Your task to perform on an android device: Check the settings for the Google Play Store app Image 0: 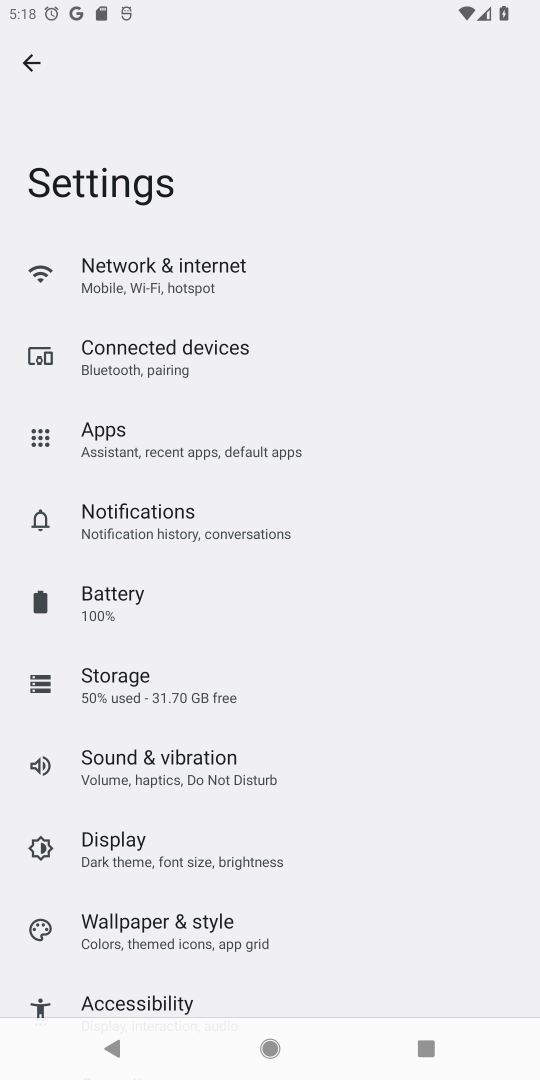
Step 0: press home button
Your task to perform on an android device: Check the settings for the Google Play Store app Image 1: 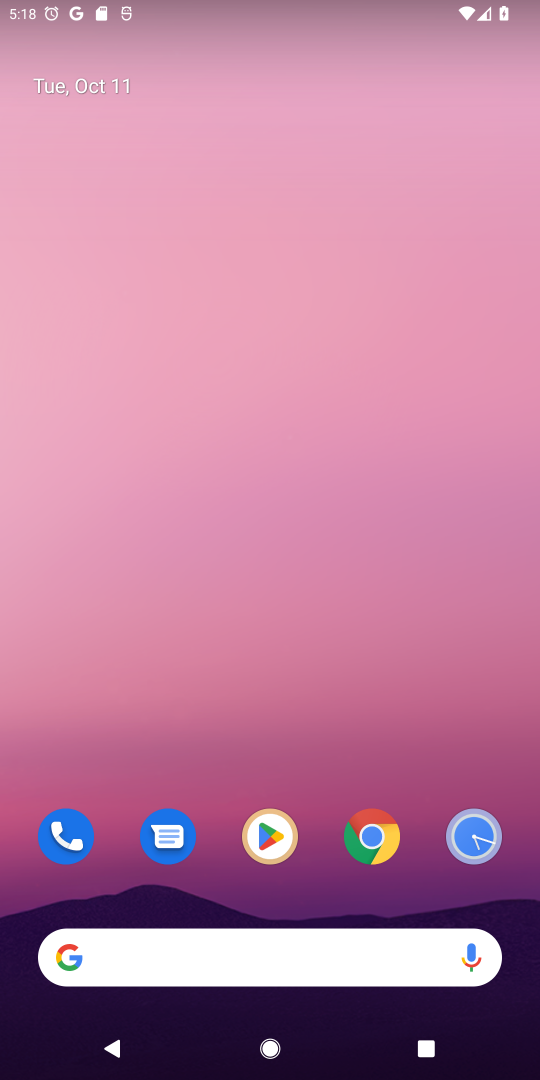
Step 1: click (282, 829)
Your task to perform on an android device: Check the settings for the Google Play Store app Image 2: 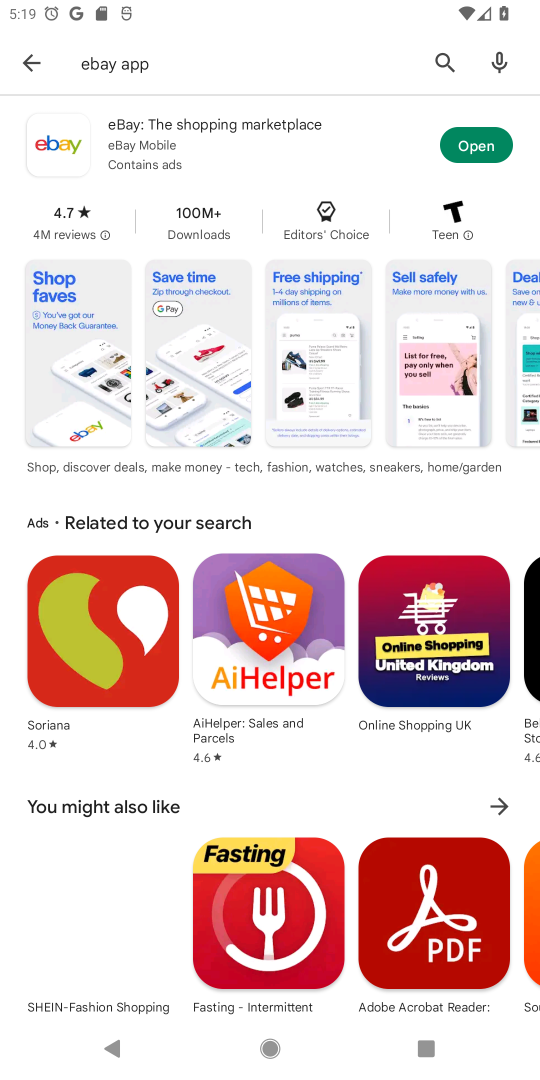
Step 2: click (32, 59)
Your task to perform on an android device: Check the settings for the Google Play Store app Image 3: 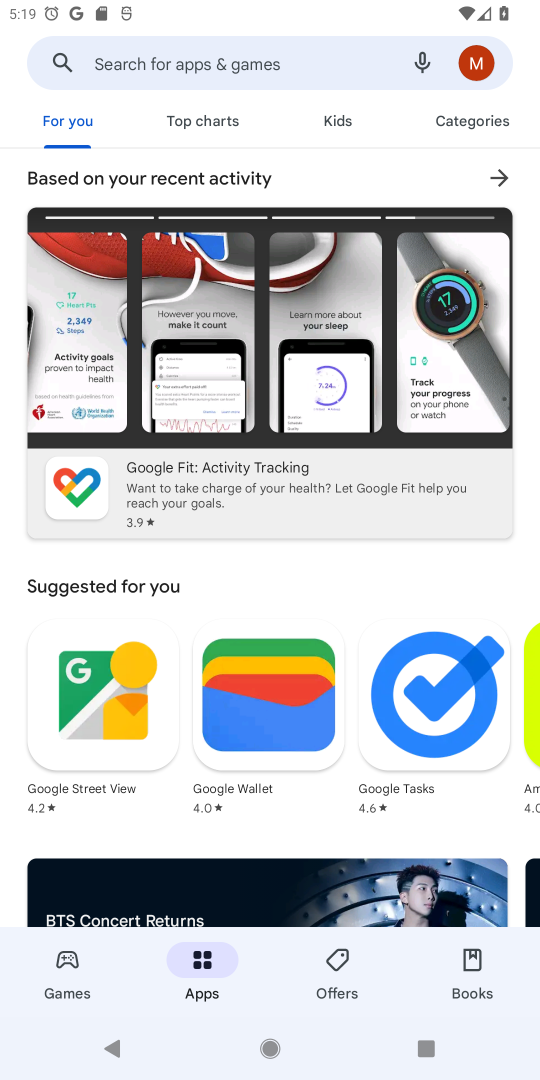
Step 3: click (466, 71)
Your task to perform on an android device: Check the settings for the Google Play Store app Image 4: 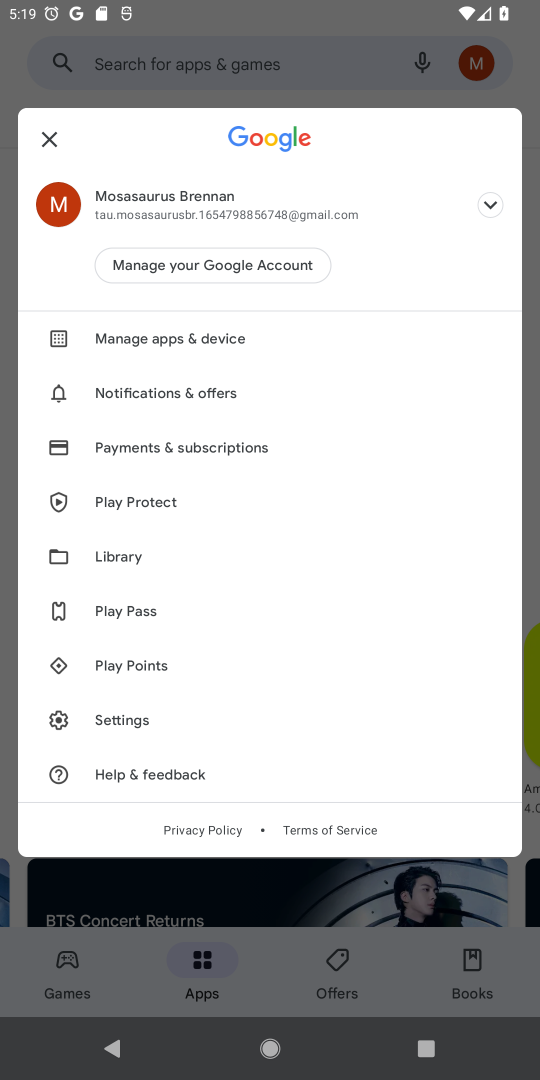
Step 4: click (110, 731)
Your task to perform on an android device: Check the settings for the Google Play Store app Image 5: 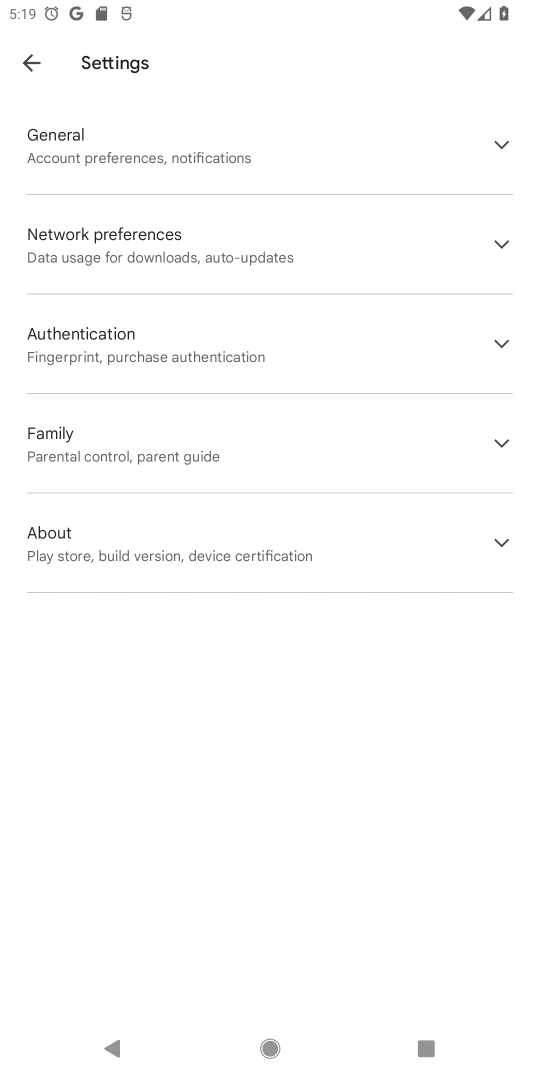
Step 5: task complete